Your task to perform on an android device: open app "DuckDuckGo Privacy Browser" Image 0: 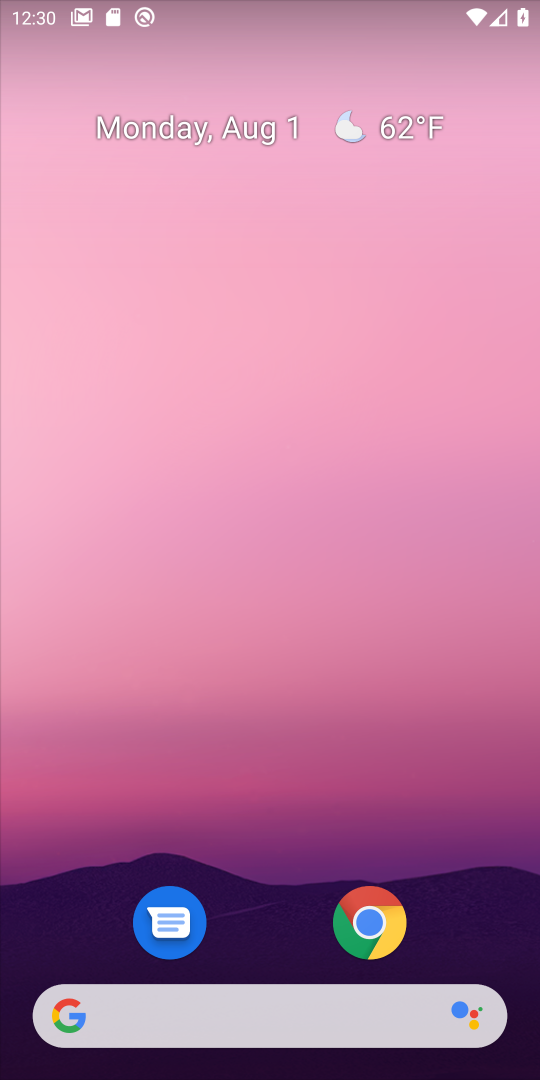
Step 0: drag from (259, 901) to (213, 217)
Your task to perform on an android device: open app "DuckDuckGo Privacy Browser" Image 1: 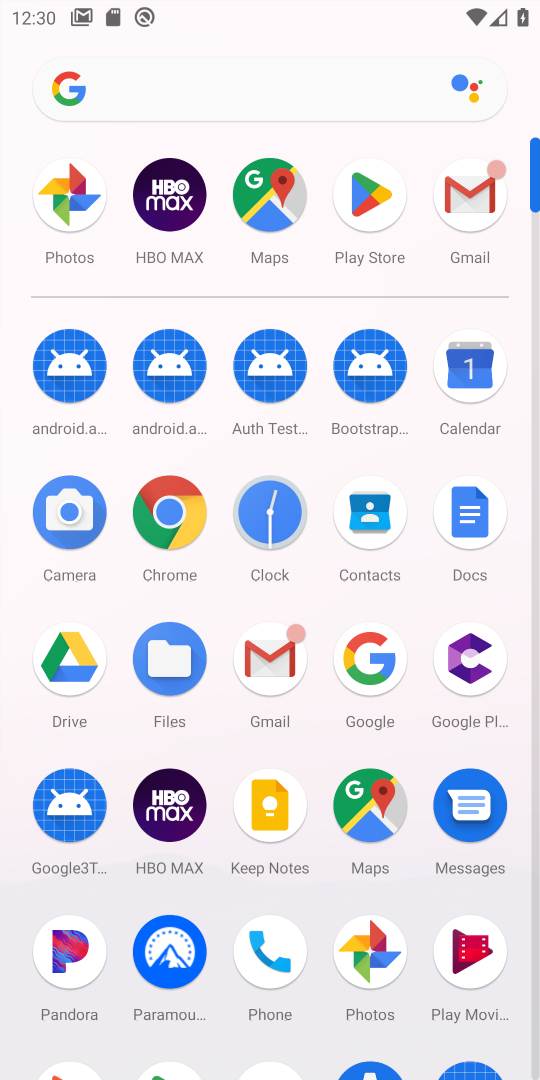
Step 1: click (377, 215)
Your task to perform on an android device: open app "DuckDuckGo Privacy Browser" Image 2: 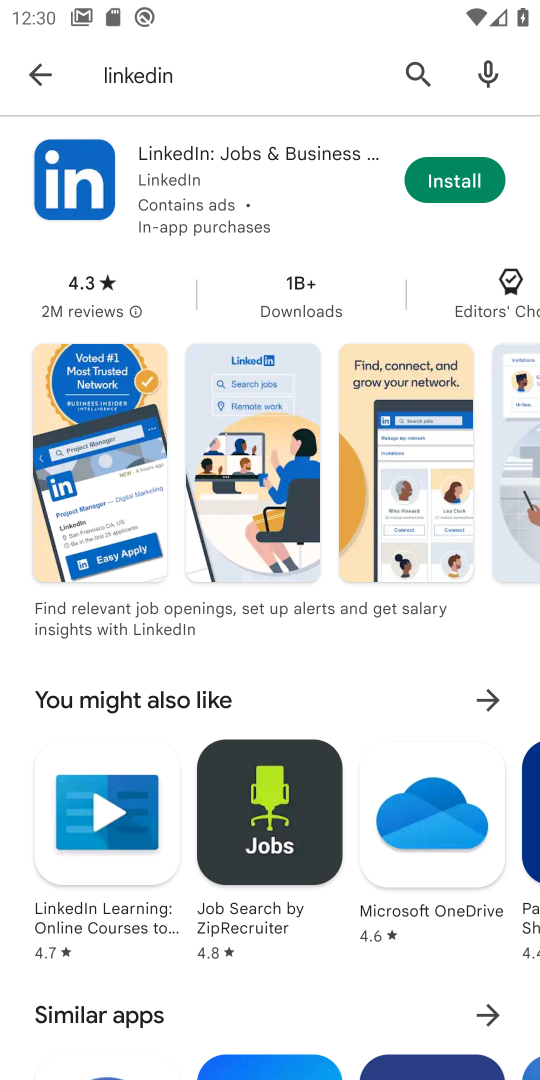
Step 2: click (411, 69)
Your task to perform on an android device: open app "DuckDuckGo Privacy Browser" Image 3: 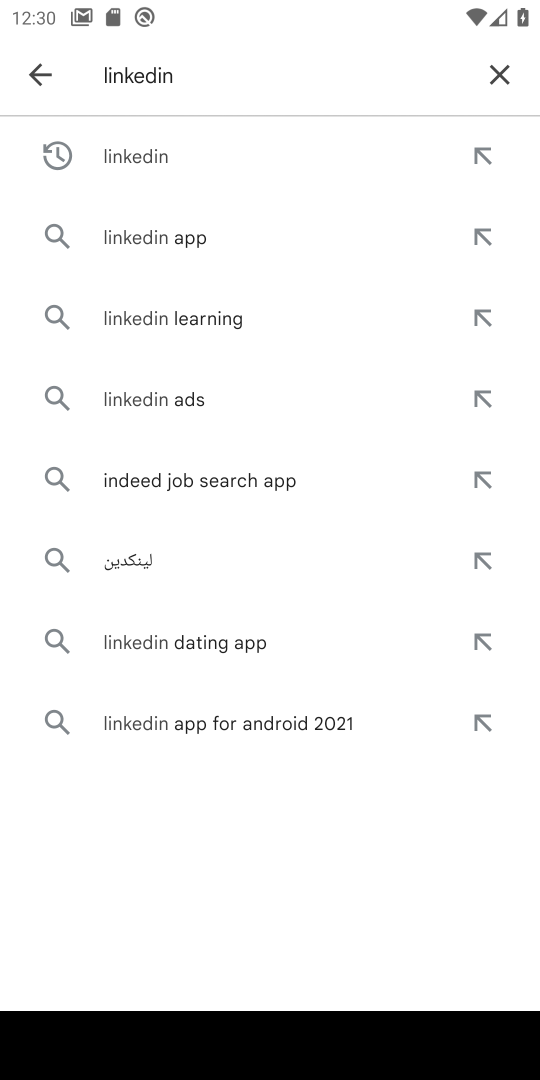
Step 3: click (493, 75)
Your task to perform on an android device: open app "DuckDuckGo Privacy Browser" Image 4: 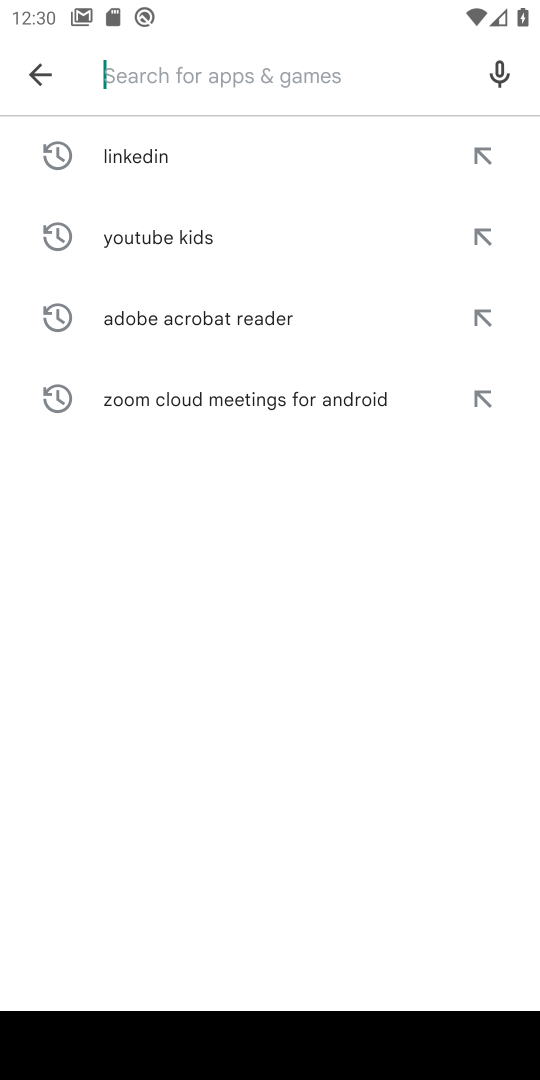
Step 4: type "DuckDuckGo Privacy Browser"
Your task to perform on an android device: open app "DuckDuckGo Privacy Browser" Image 5: 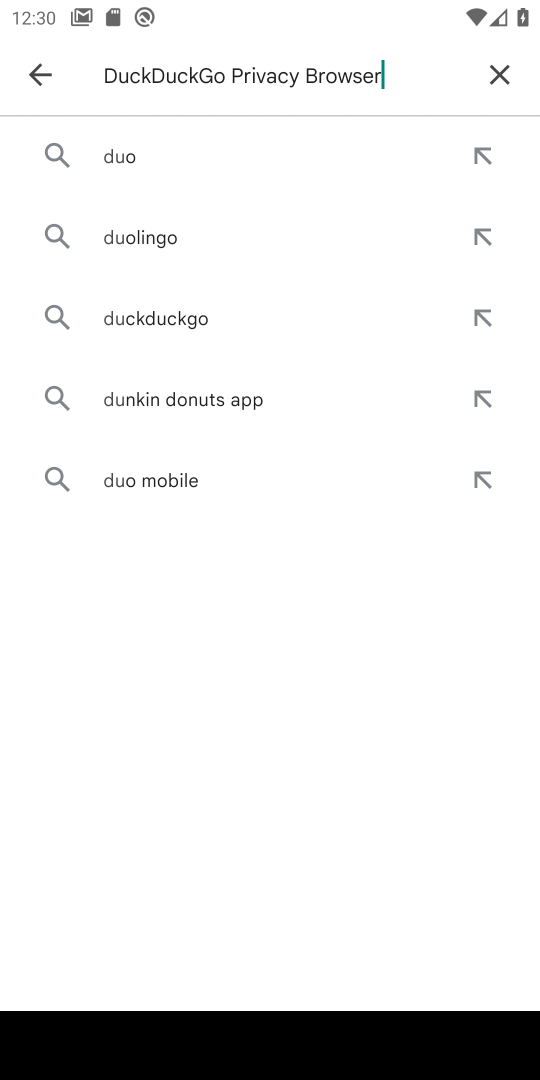
Step 5: type ""
Your task to perform on an android device: open app "DuckDuckGo Privacy Browser" Image 6: 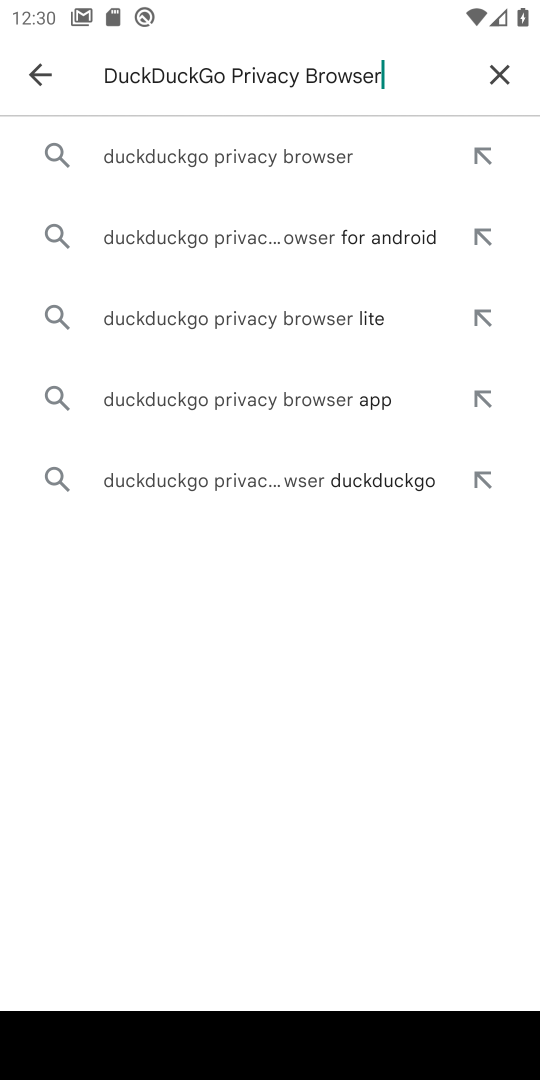
Step 6: click (343, 160)
Your task to perform on an android device: open app "DuckDuckGo Privacy Browser" Image 7: 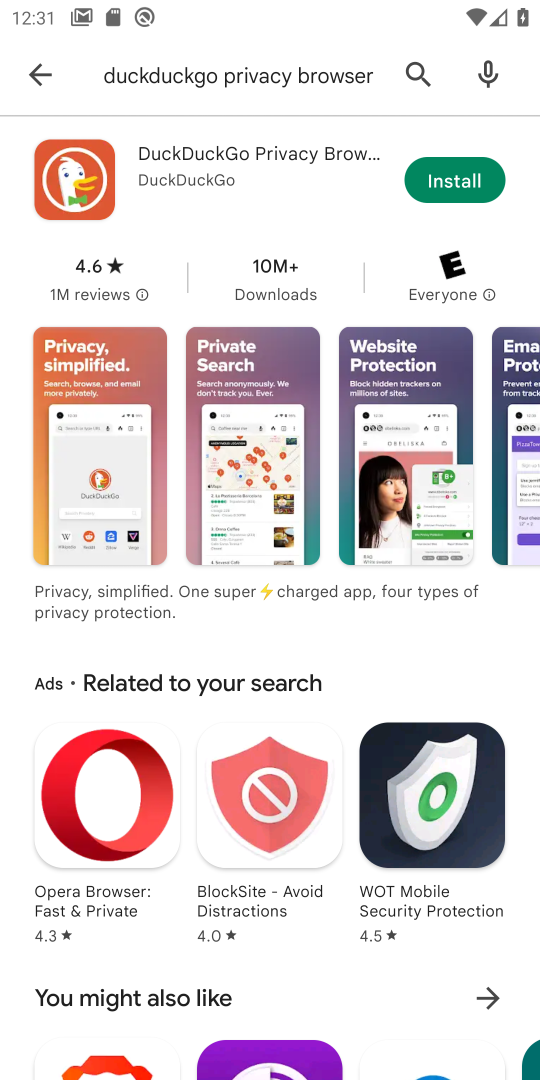
Step 7: task complete